Your task to perform on an android device: Open Google Chrome and open the bookmarks view Image 0: 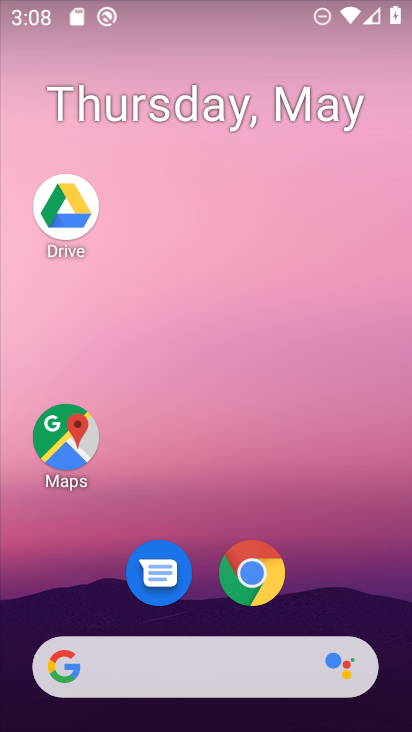
Step 0: click (242, 581)
Your task to perform on an android device: Open Google Chrome and open the bookmarks view Image 1: 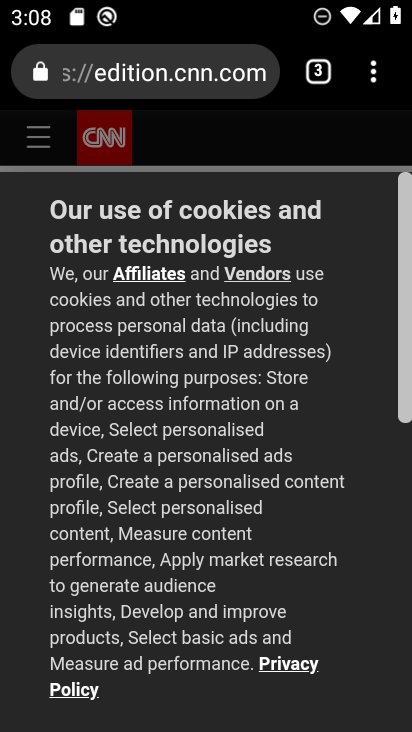
Step 1: click (376, 64)
Your task to perform on an android device: Open Google Chrome and open the bookmarks view Image 2: 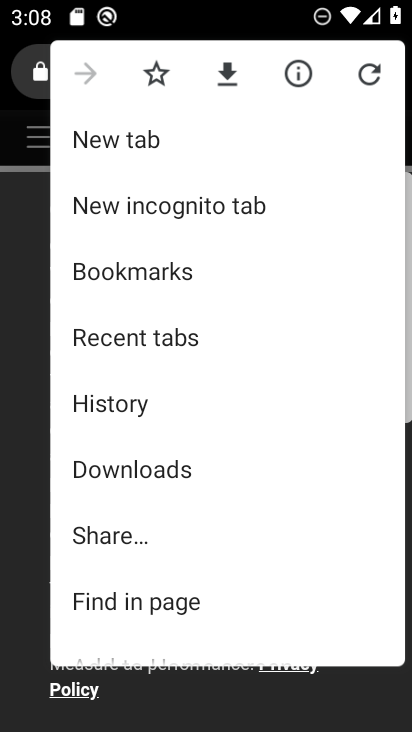
Step 2: click (150, 272)
Your task to perform on an android device: Open Google Chrome and open the bookmarks view Image 3: 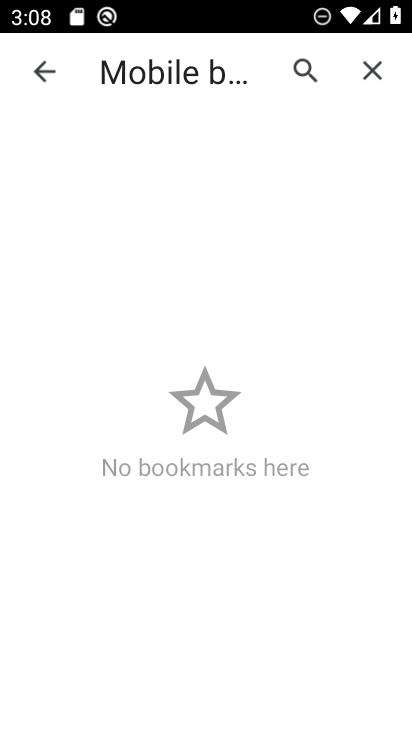
Step 3: task complete